Your task to perform on an android device: Open the calendar and show me this week's events Image 0: 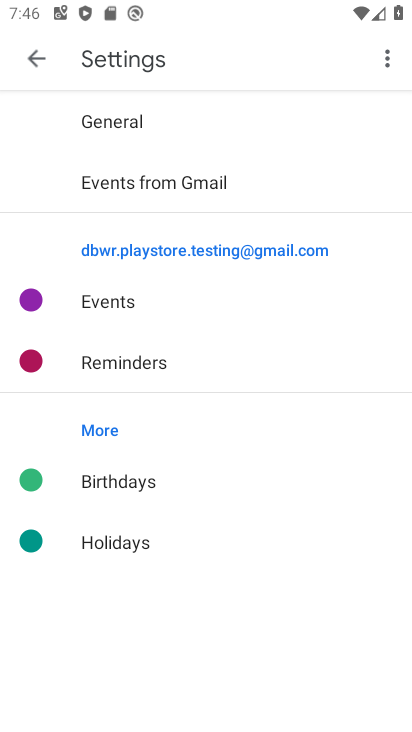
Step 0: press home button
Your task to perform on an android device: Open the calendar and show me this week's events Image 1: 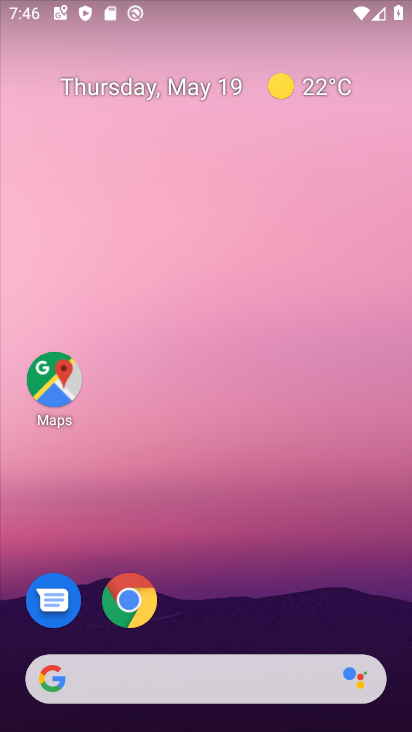
Step 1: drag from (288, 539) to (273, 174)
Your task to perform on an android device: Open the calendar and show me this week's events Image 2: 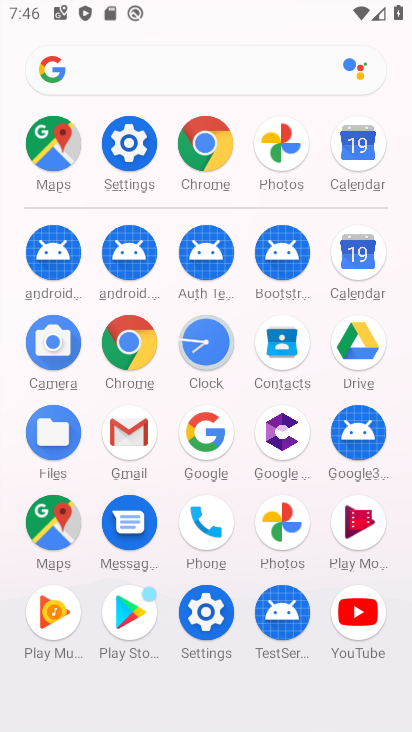
Step 2: click (364, 165)
Your task to perform on an android device: Open the calendar and show me this week's events Image 3: 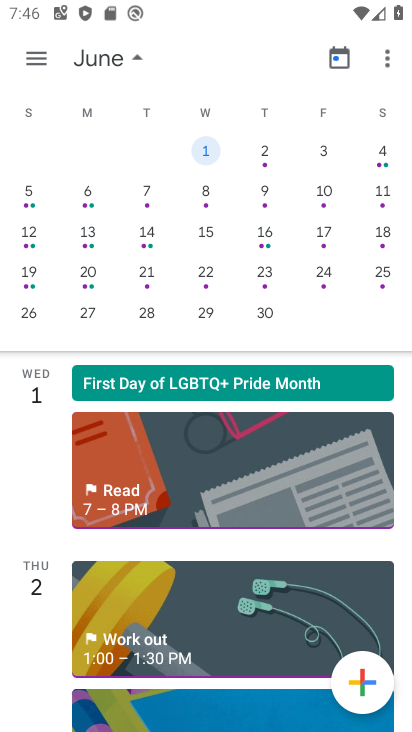
Step 3: drag from (38, 171) to (363, 148)
Your task to perform on an android device: Open the calendar and show me this week's events Image 4: 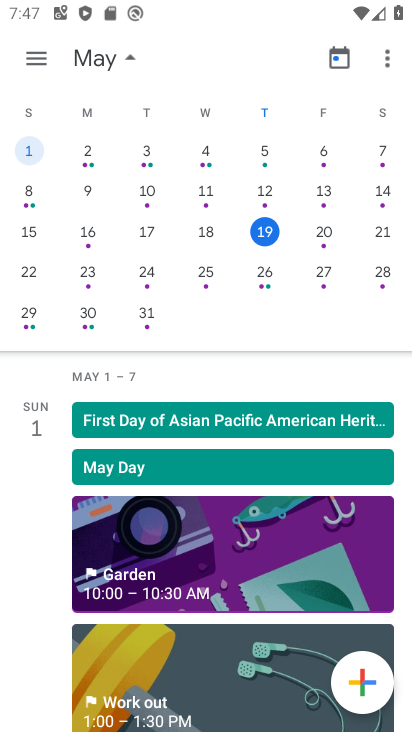
Step 4: click (264, 229)
Your task to perform on an android device: Open the calendar and show me this week's events Image 5: 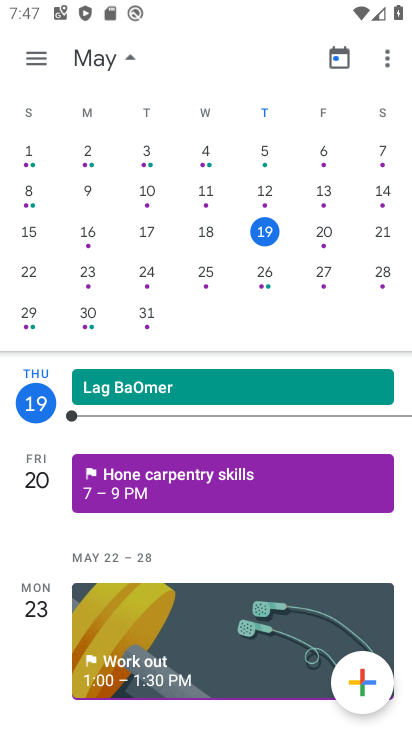
Step 5: task complete